Your task to perform on an android device: open a bookmark in the chrome app Image 0: 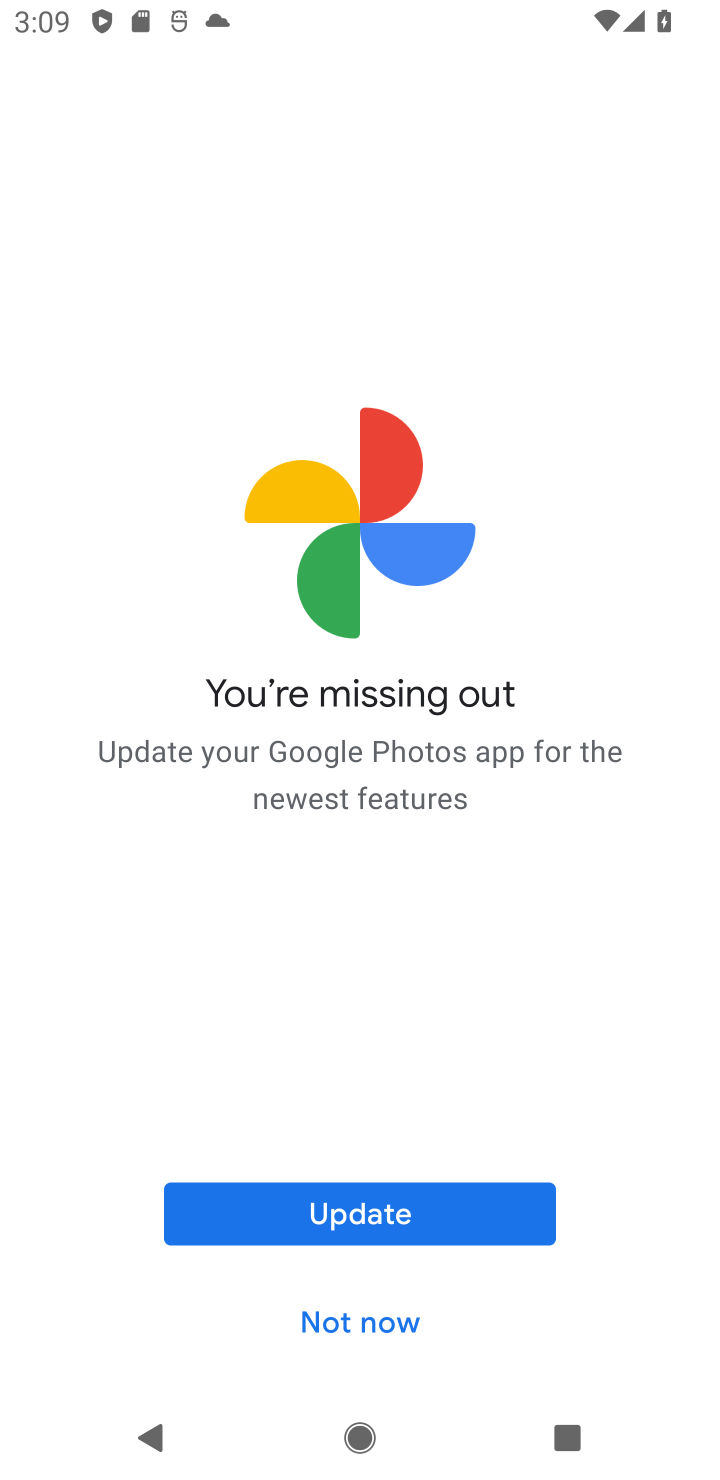
Step 0: press home button
Your task to perform on an android device: open a bookmark in the chrome app Image 1: 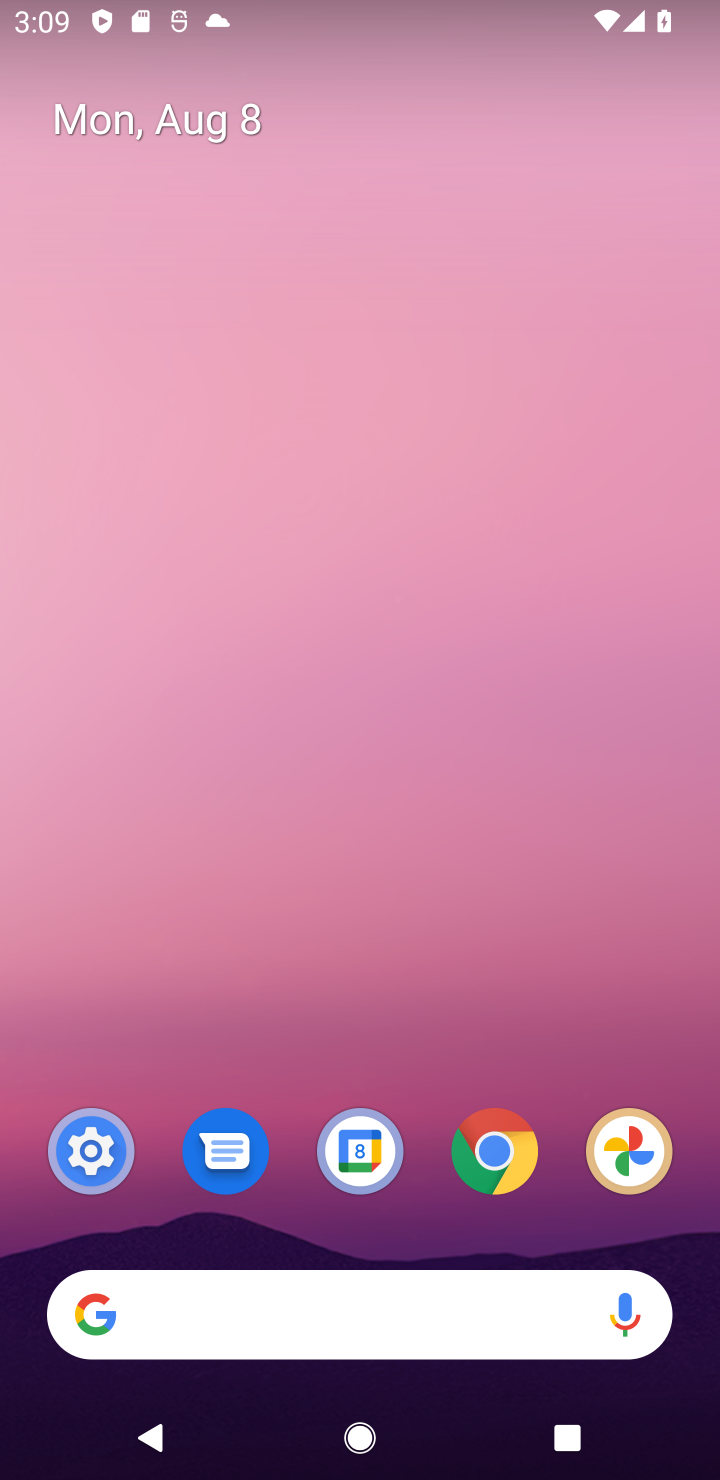
Step 1: click (471, 1169)
Your task to perform on an android device: open a bookmark in the chrome app Image 2: 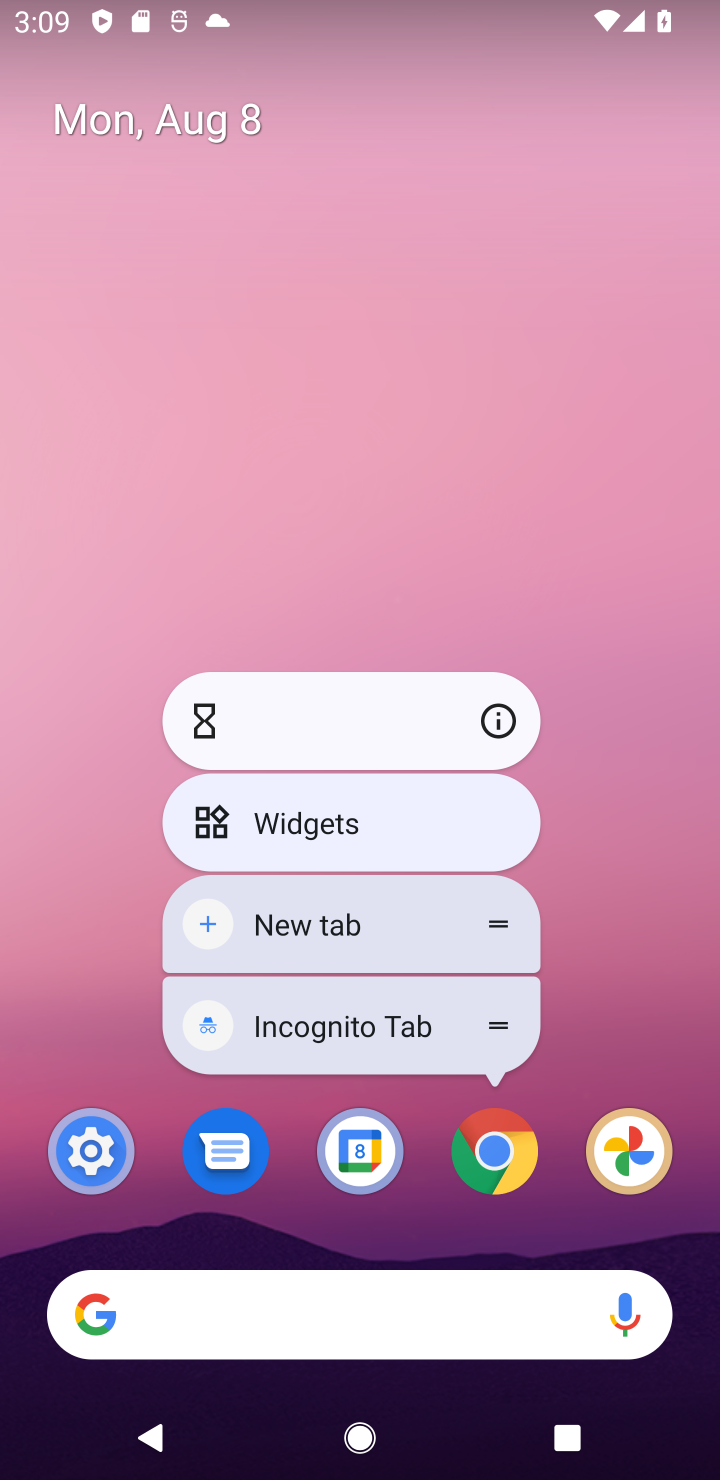
Step 2: click (469, 1169)
Your task to perform on an android device: open a bookmark in the chrome app Image 3: 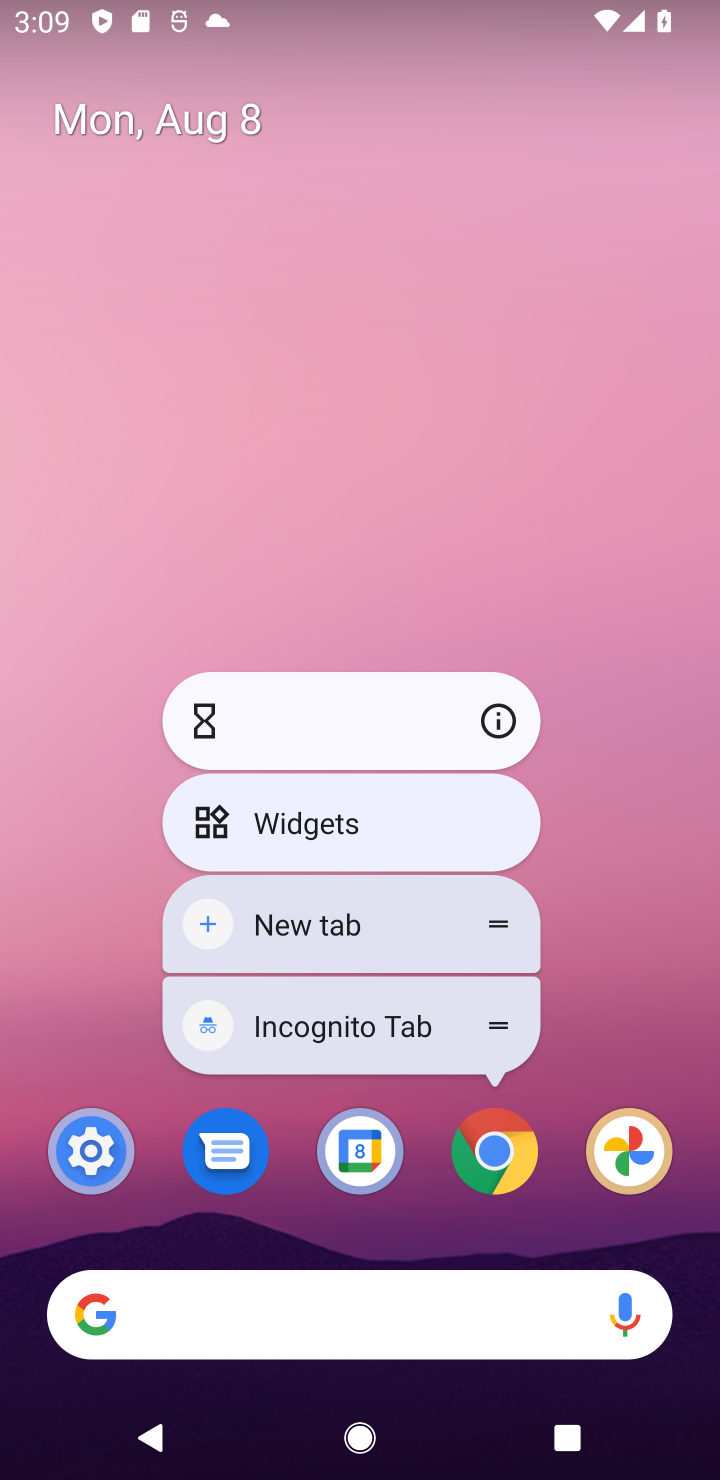
Step 3: click (469, 1169)
Your task to perform on an android device: open a bookmark in the chrome app Image 4: 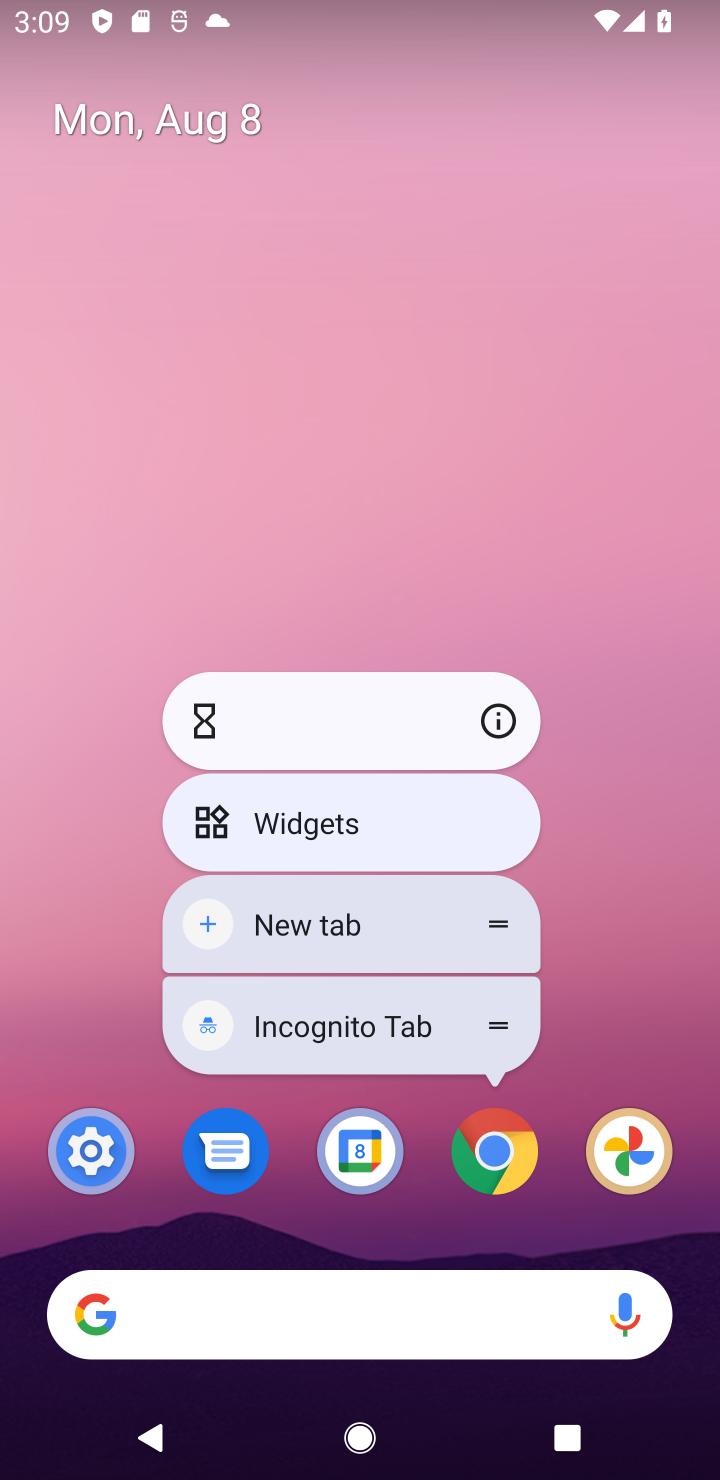
Step 4: click (487, 1176)
Your task to perform on an android device: open a bookmark in the chrome app Image 5: 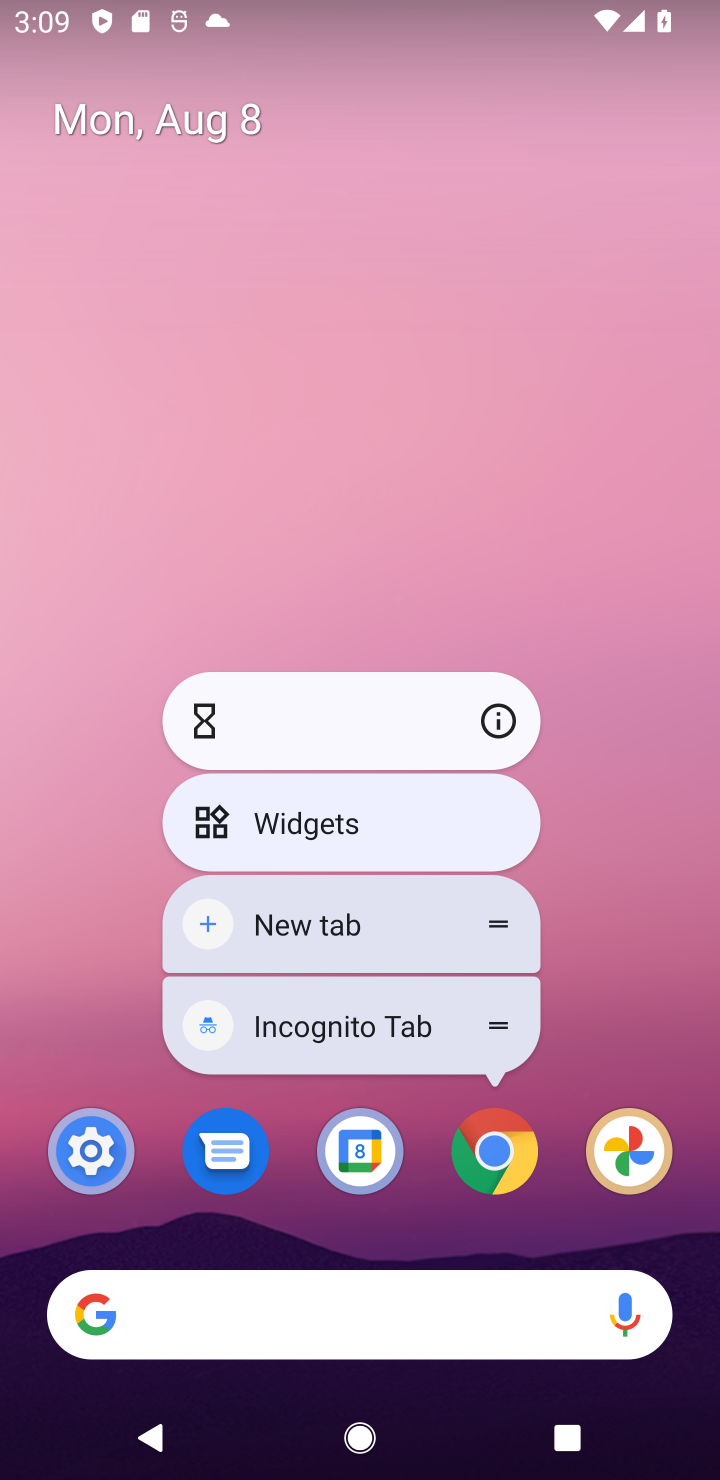
Step 5: click (487, 1176)
Your task to perform on an android device: open a bookmark in the chrome app Image 6: 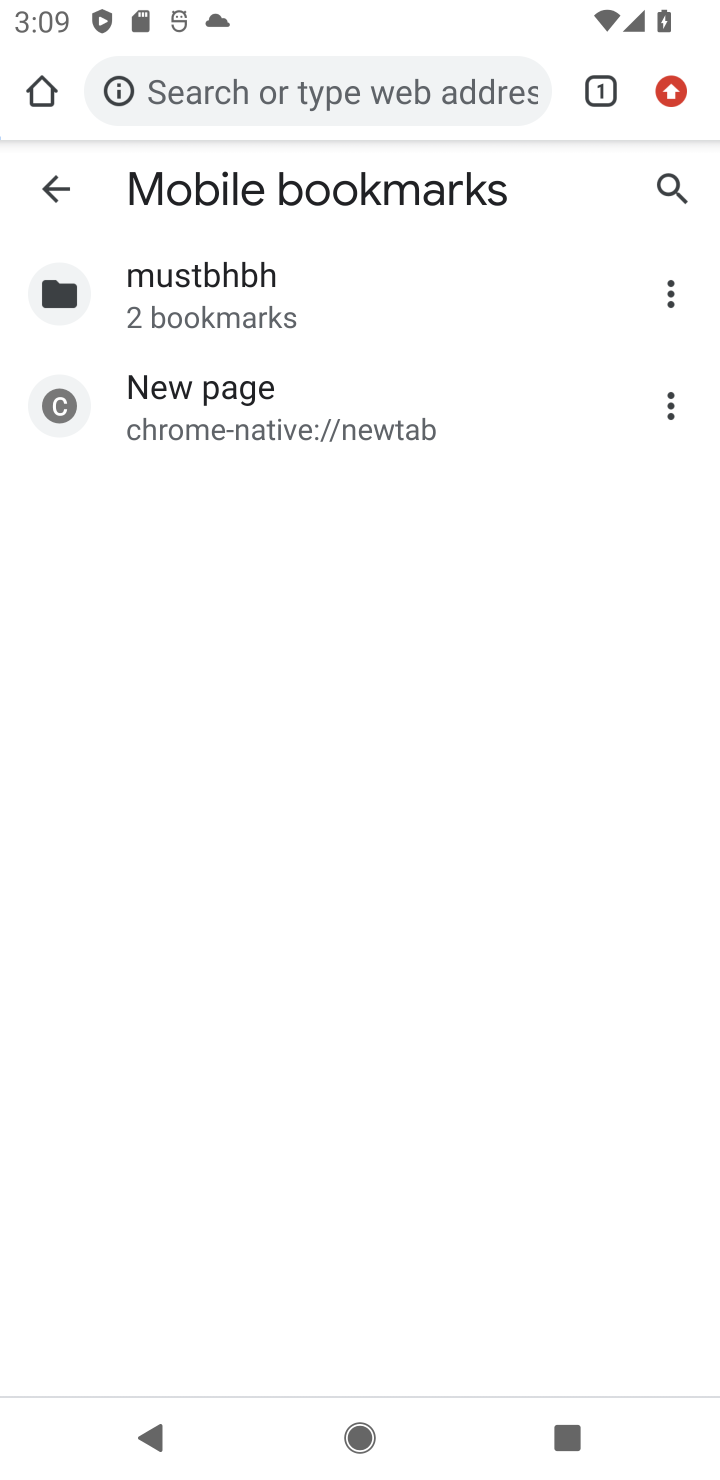
Step 6: click (599, 116)
Your task to perform on an android device: open a bookmark in the chrome app Image 7: 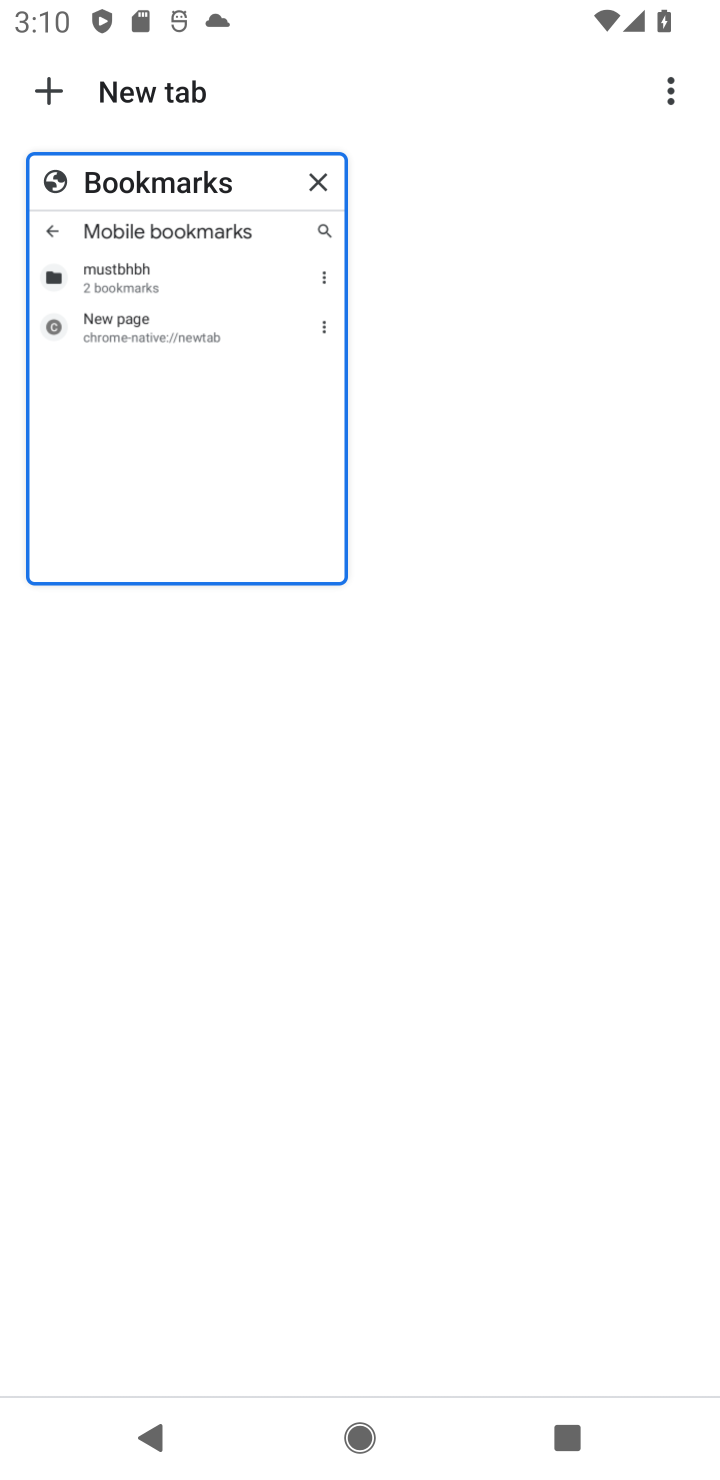
Step 7: click (648, 94)
Your task to perform on an android device: open a bookmark in the chrome app Image 8: 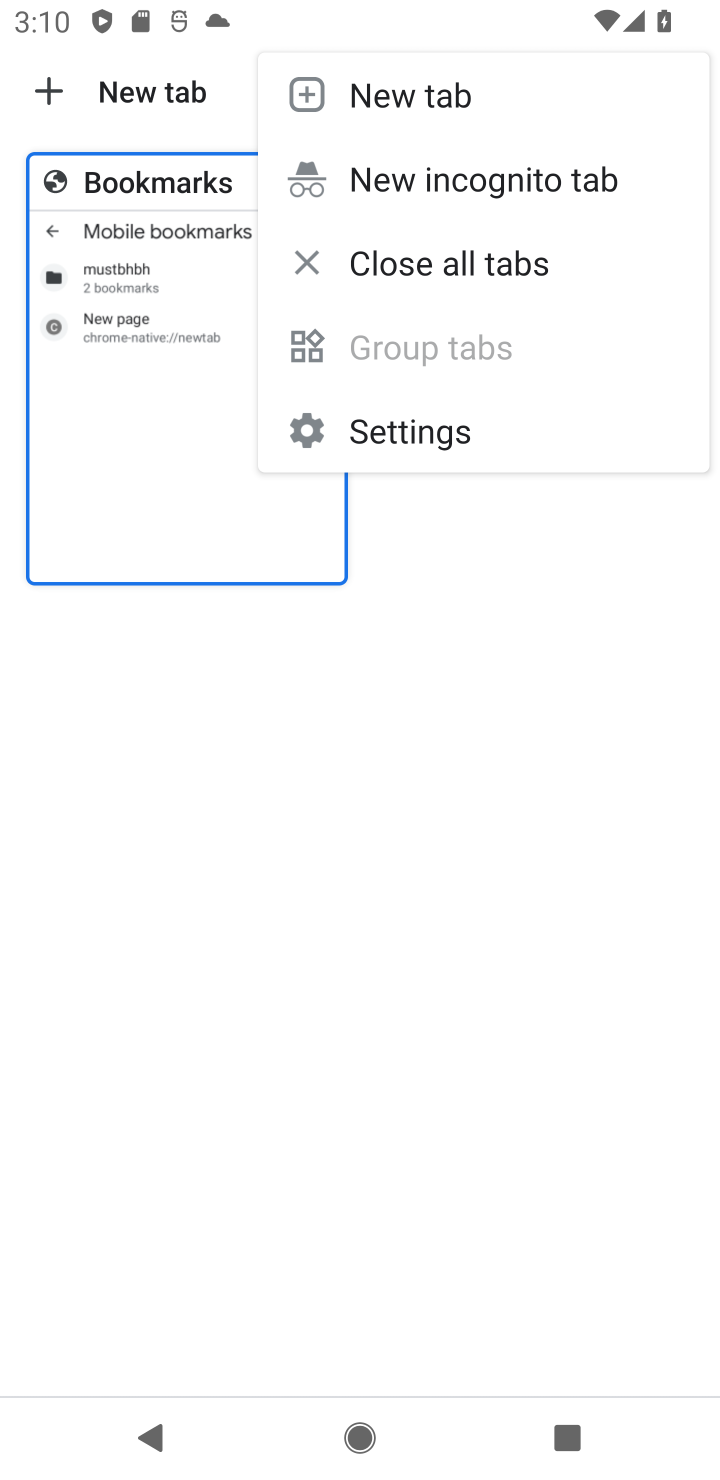
Step 8: click (406, 440)
Your task to perform on an android device: open a bookmark in the chrome app Image 9: 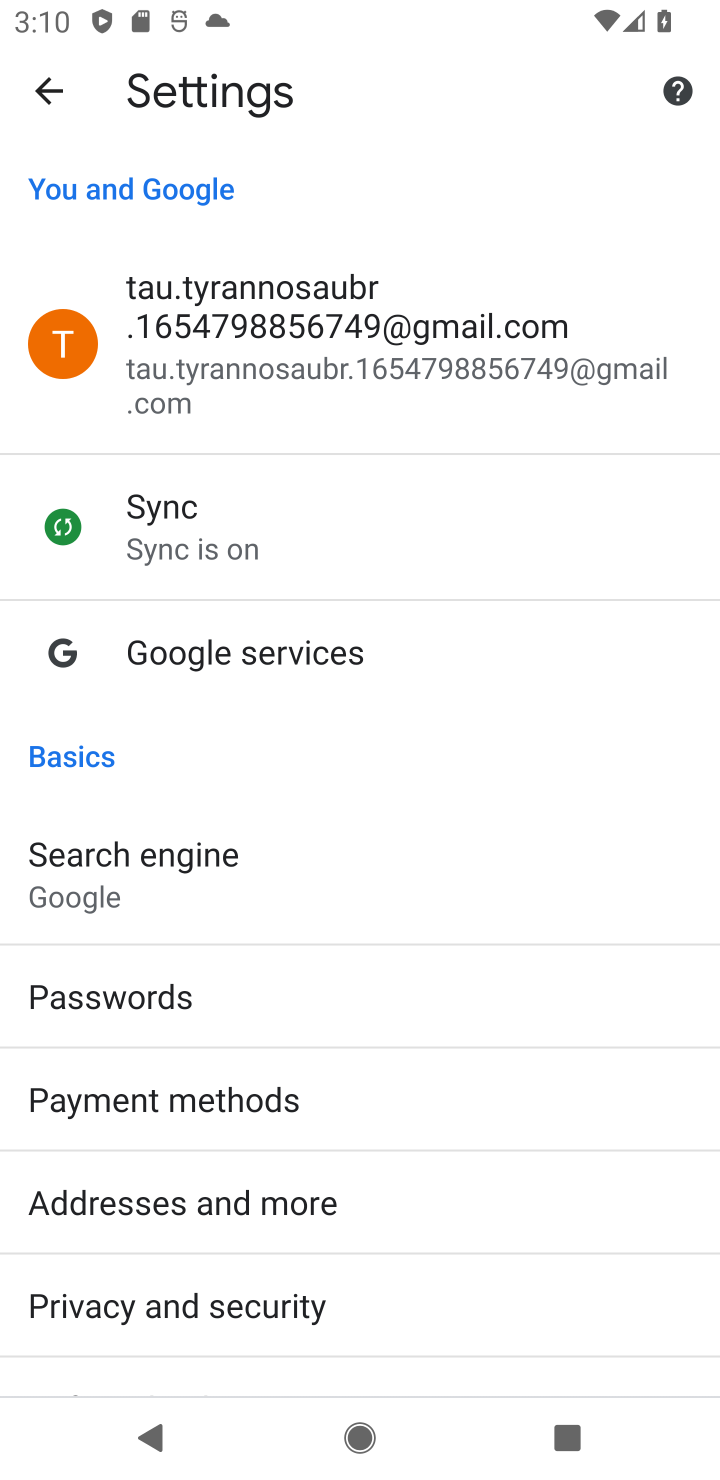
Step 9: drag from (340, 1174) to (278, 536)
Your task to perform on an android device: open a bookmark in the chrome app Image 10: 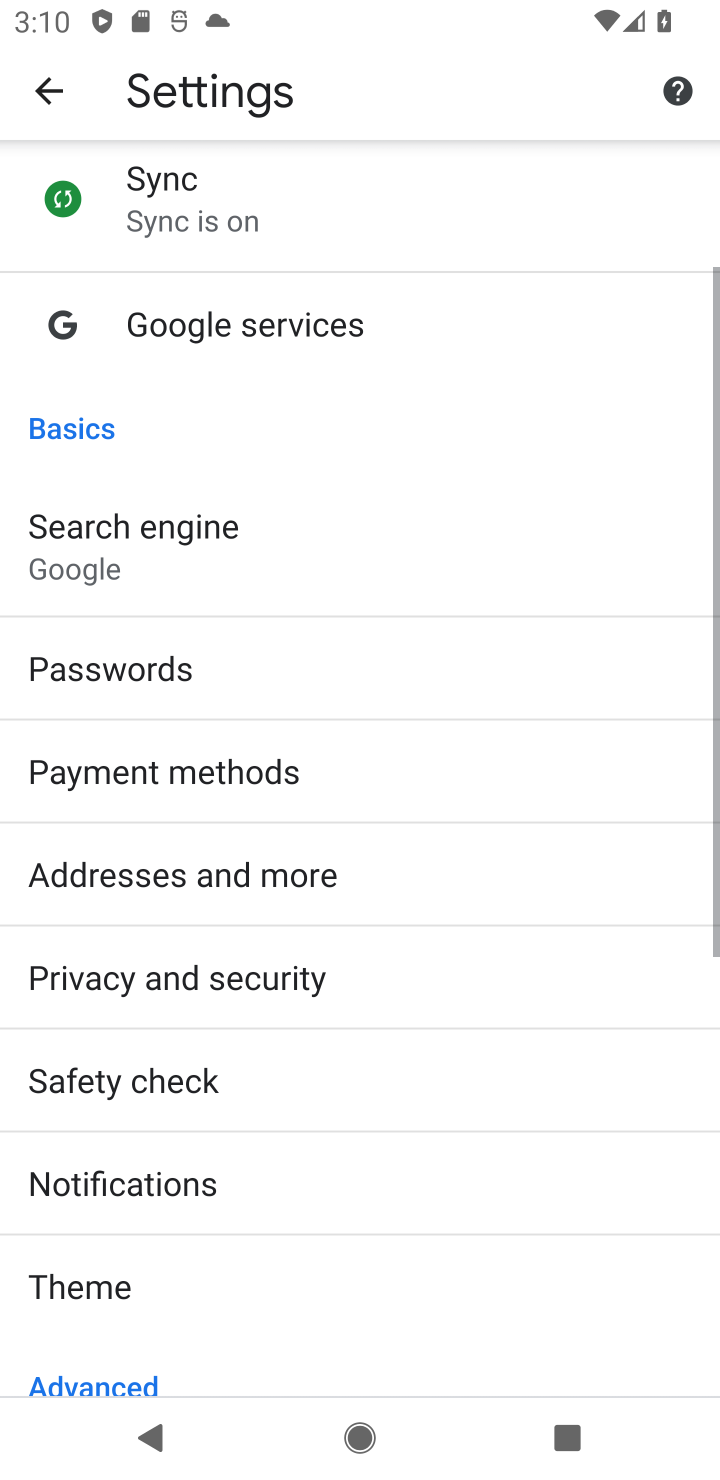
Step 10: click (34, 115)
Your task to perform on an android device: open a bookmark in the chrome app Image 11: 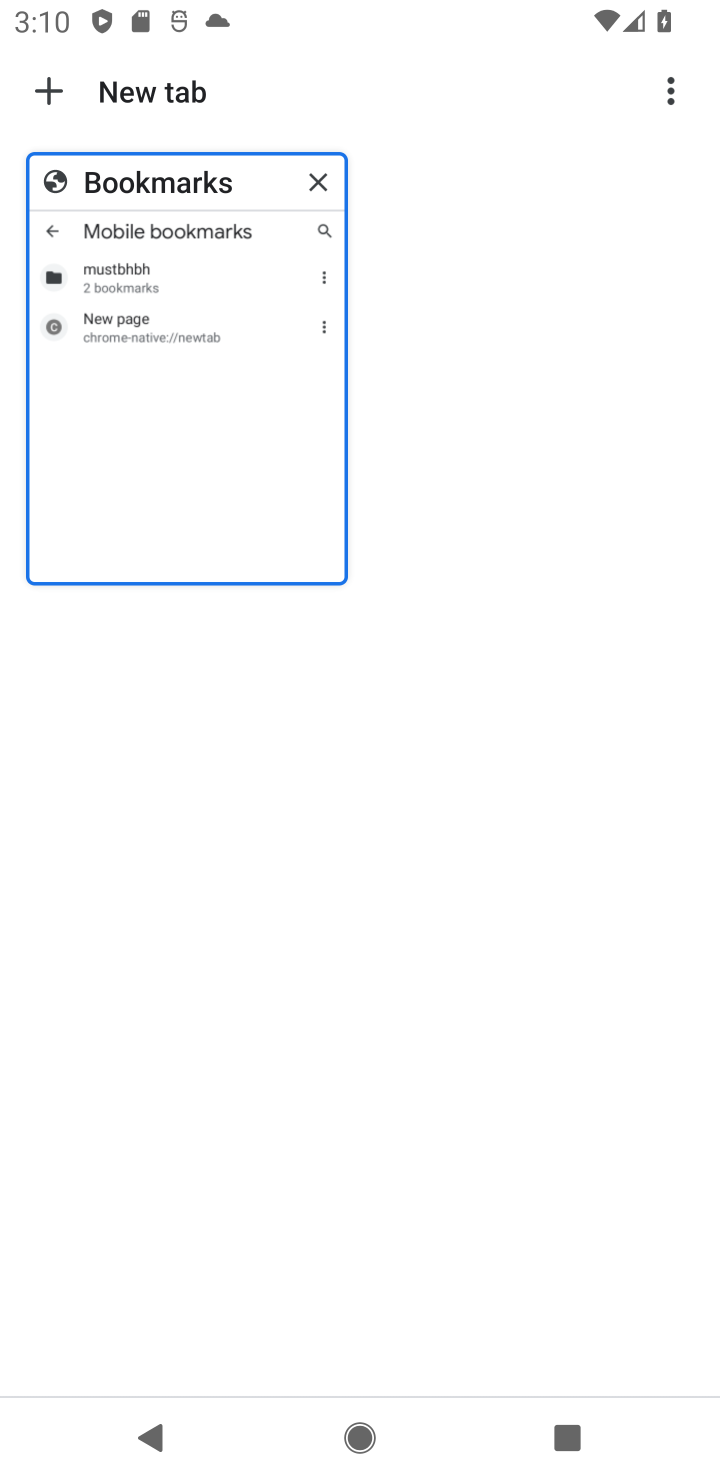
Step 11: click (655, 84)
Your task to perform on an android device: open a bookmark in the chrome app Image 12: 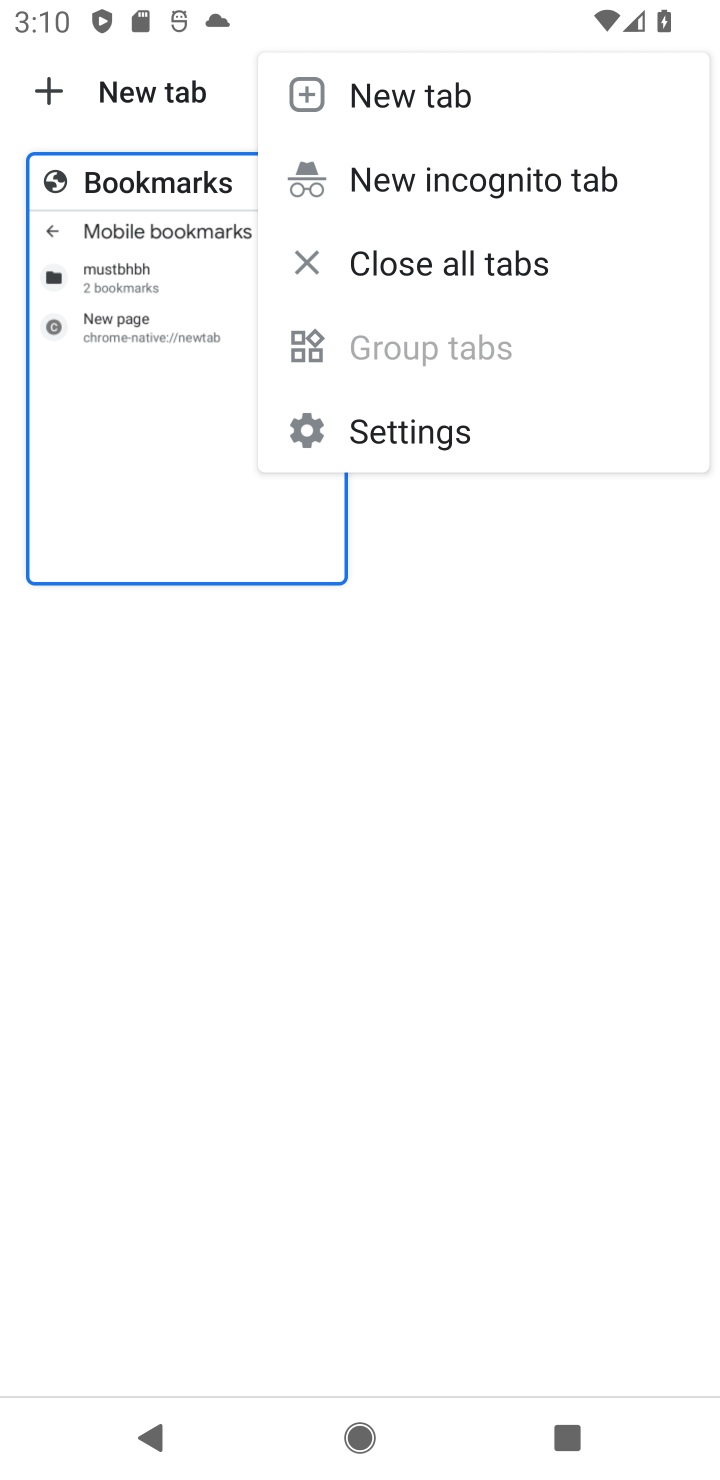
Step 12: click (446, 992)
Your task to perform on an android device: open a bookmark in the chrome app Image 13: 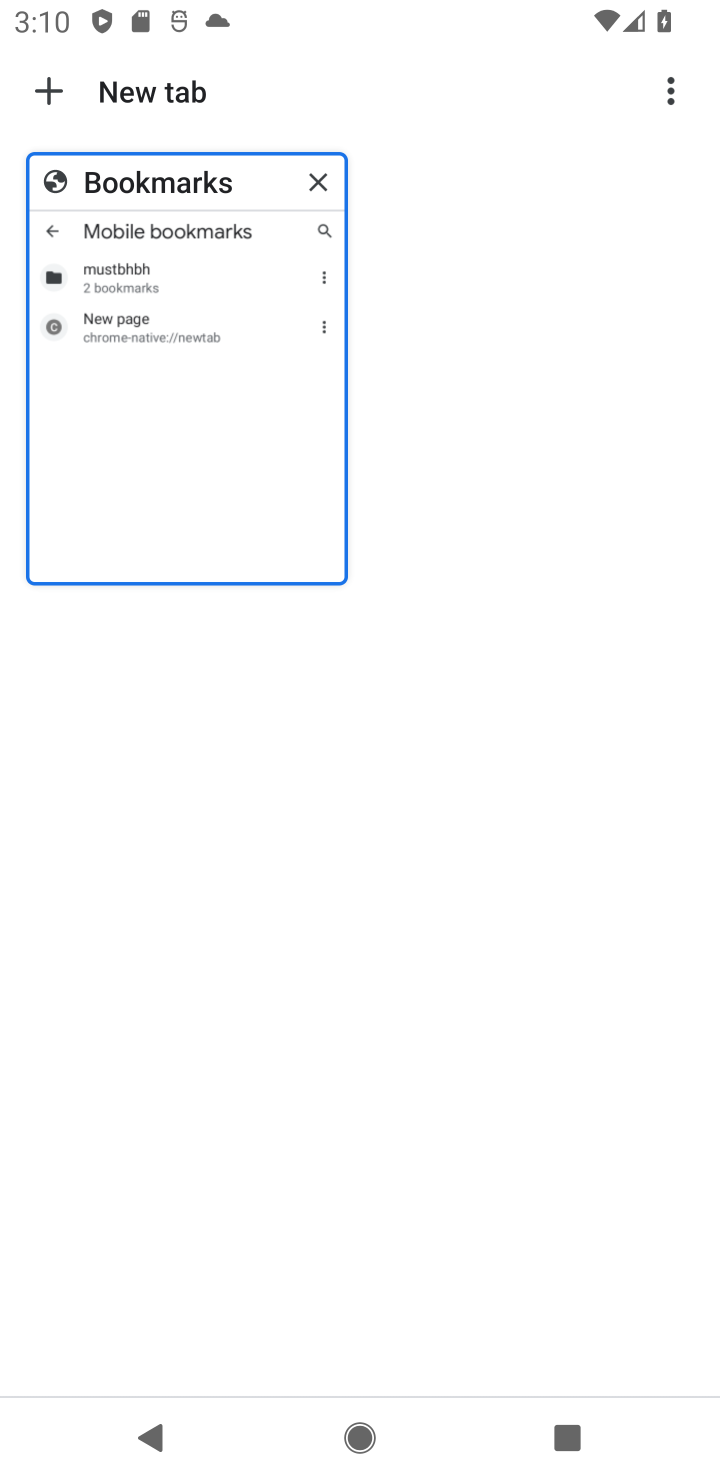
Step 13: task complete